Your task to perform on an android device: Clear the cart on costco. Search for "bose soundsport free" on costco, select the first entry, add it to the cart, then select checkout. Image 0: 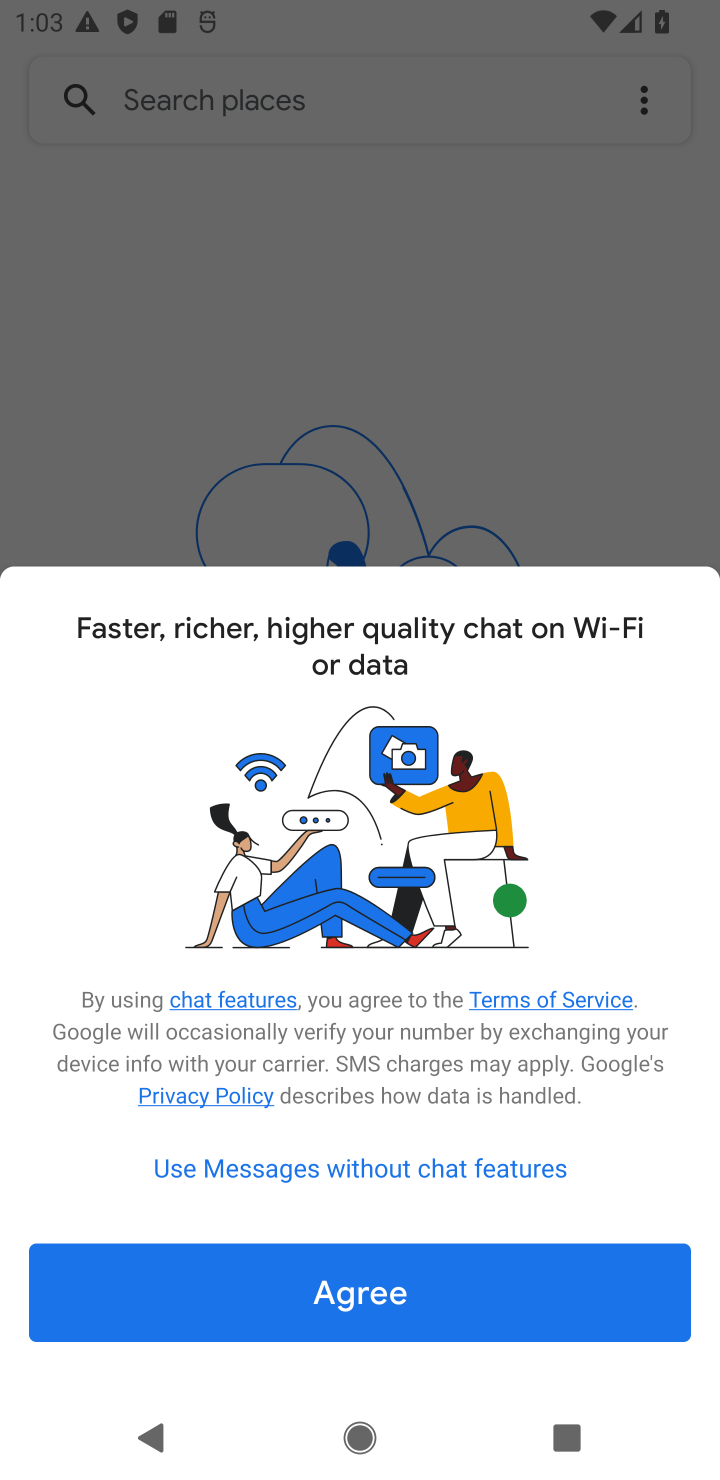
Step 0: press home button
Your task to perform on an android device: Clear the cart on costco. Search for "bose soundsport free" on costco, select the first entry, add it to the cart, then select checkout. Image 1: 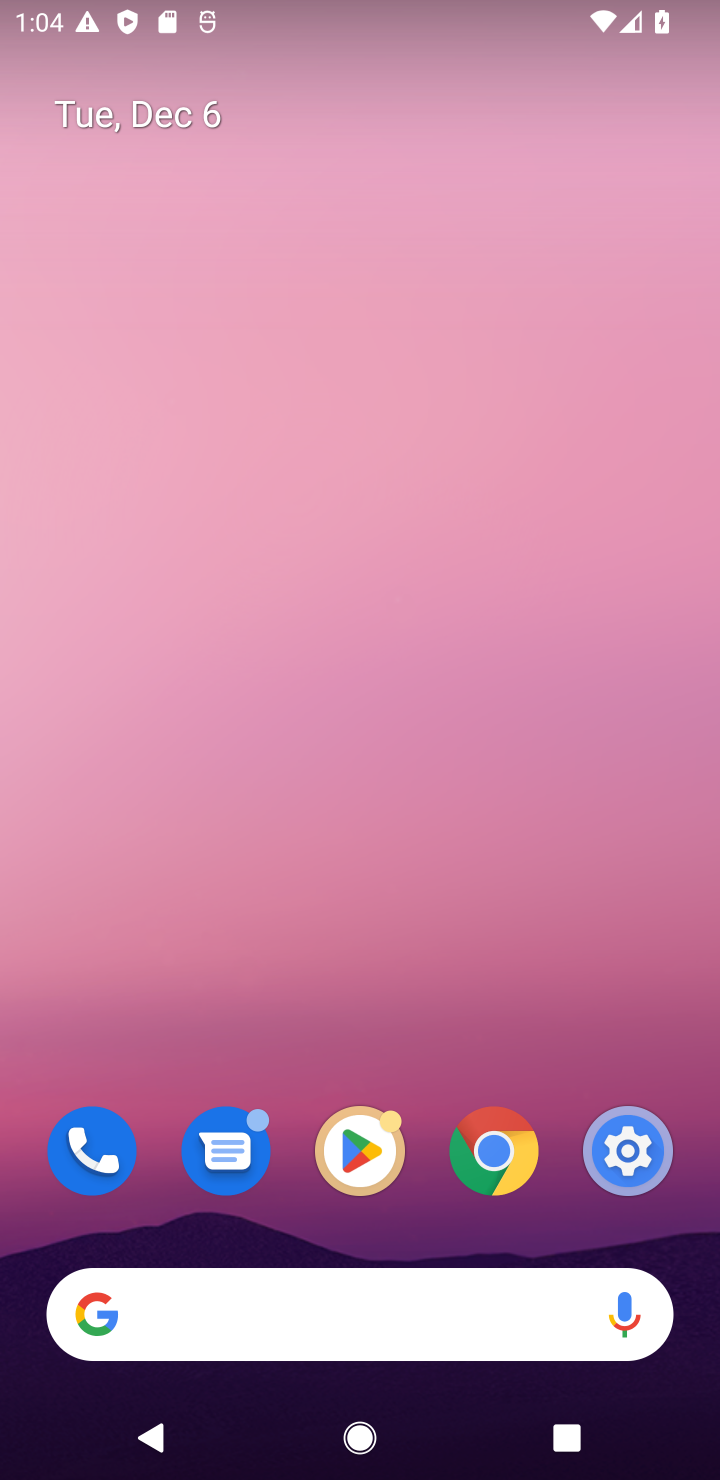
Step 1: click (501, 1167)
Your task to perform on an android device: Clear the cart on costco. Search for "bose soundsport free" on costco, select the first entry, add it to the cart, then select checkout. Image 2: 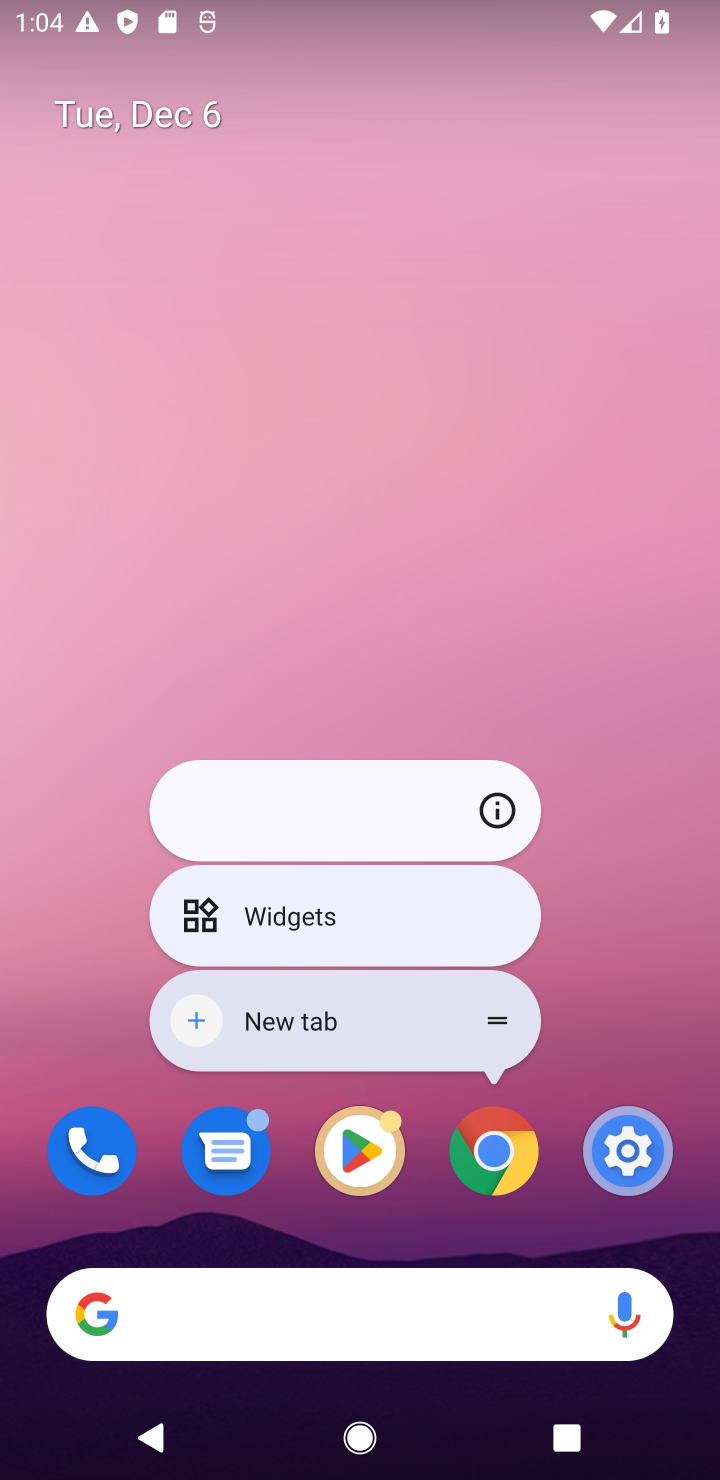
Step 2: click (491, 1162)
Your task to perform on an android device: Clear the cart on costco. Search for "bose soundsport free" on costco, select the first entry, add it to the cart, then select checkout. Image 3: 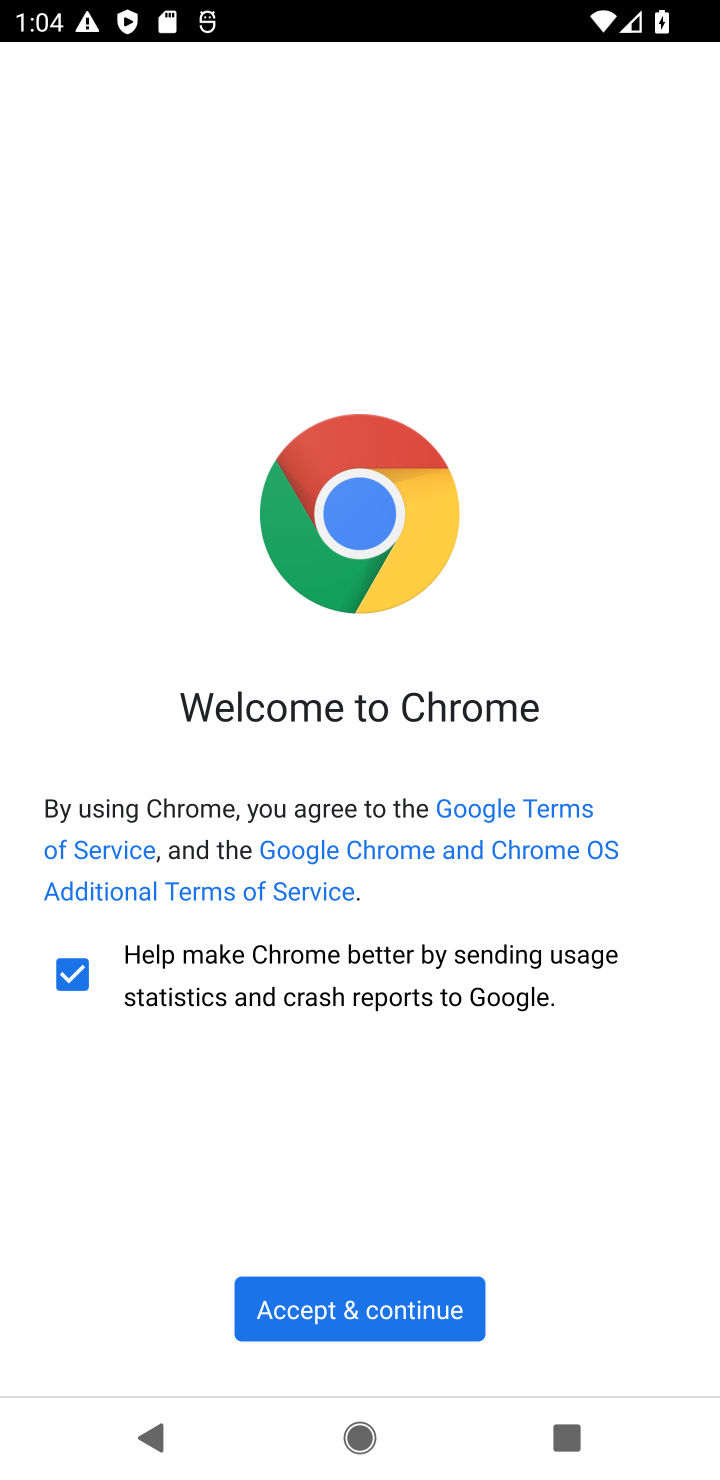
Step 3: click (300, 1306)
Your task to perform on an android device: Clear the cart on costco. Search for "bose soundsport free" on costco, select the first entry, add it to the cart, then select checkout. Image 4: 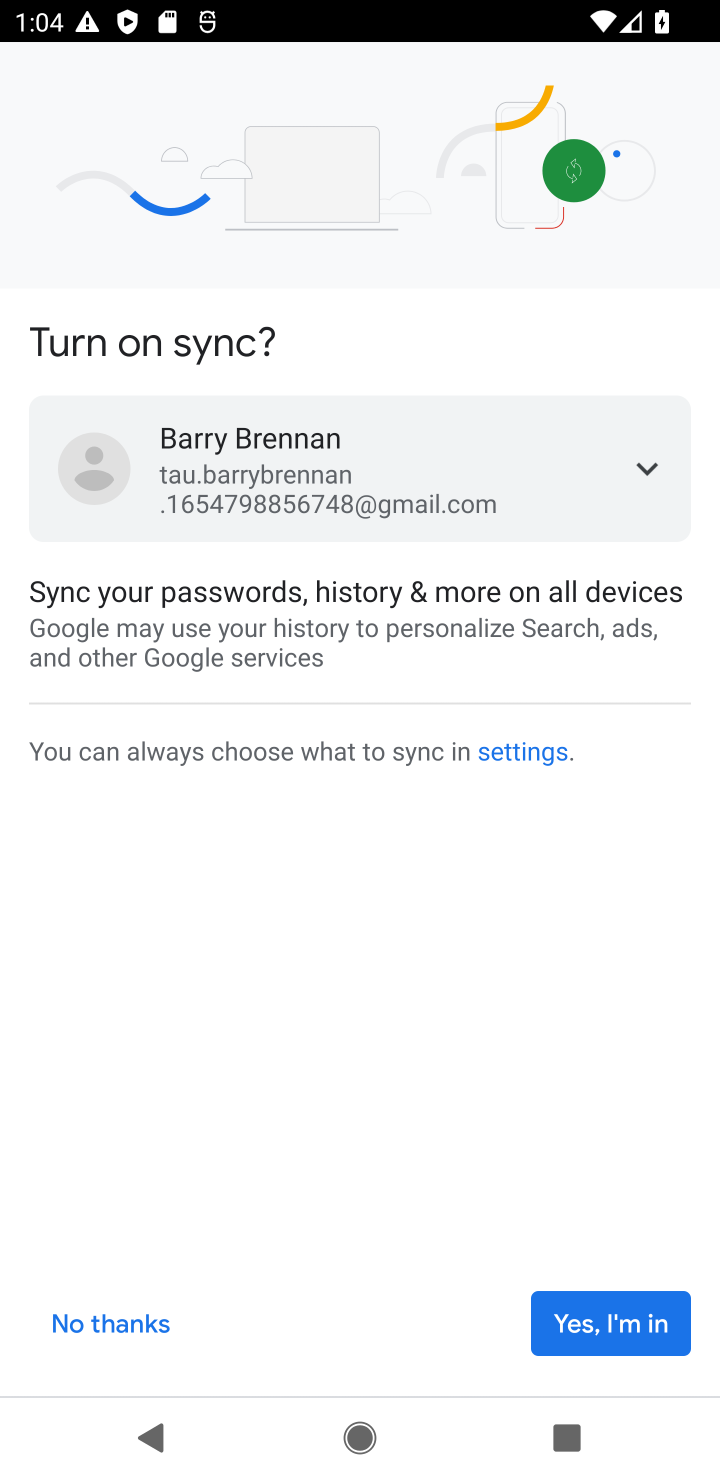
Step 4: click (99, 1321)
Your task to perform on an android device: Clear the cart on costco. Search for "bose soundsport free" on costco, select the first entry, add it to the cart, then select checkout. Image 5: 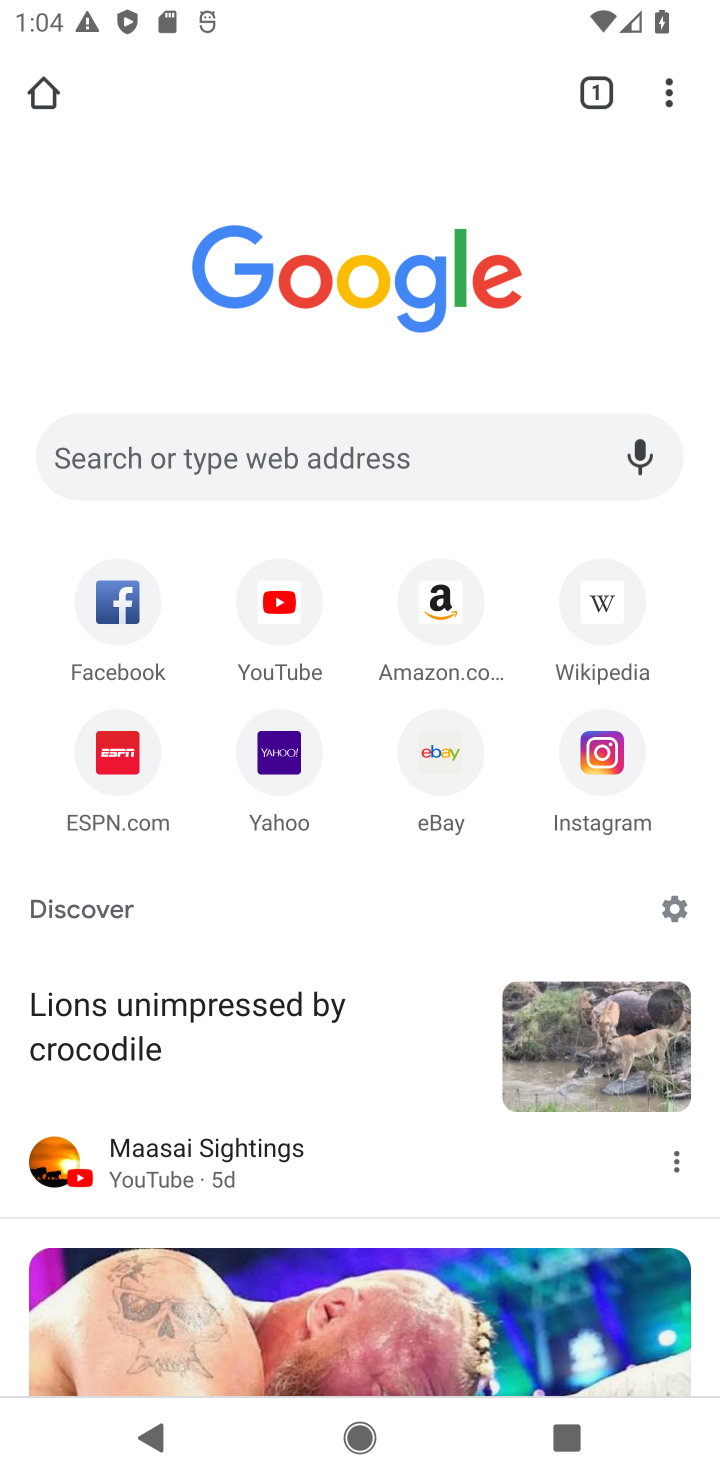
Step 5: click (279, 450)
Your task to perform on an android device: Clear the cart on costco. Search for "bose soundsport free" on costco, select the first entry, add it to the cart, then select checkout. Image 6: 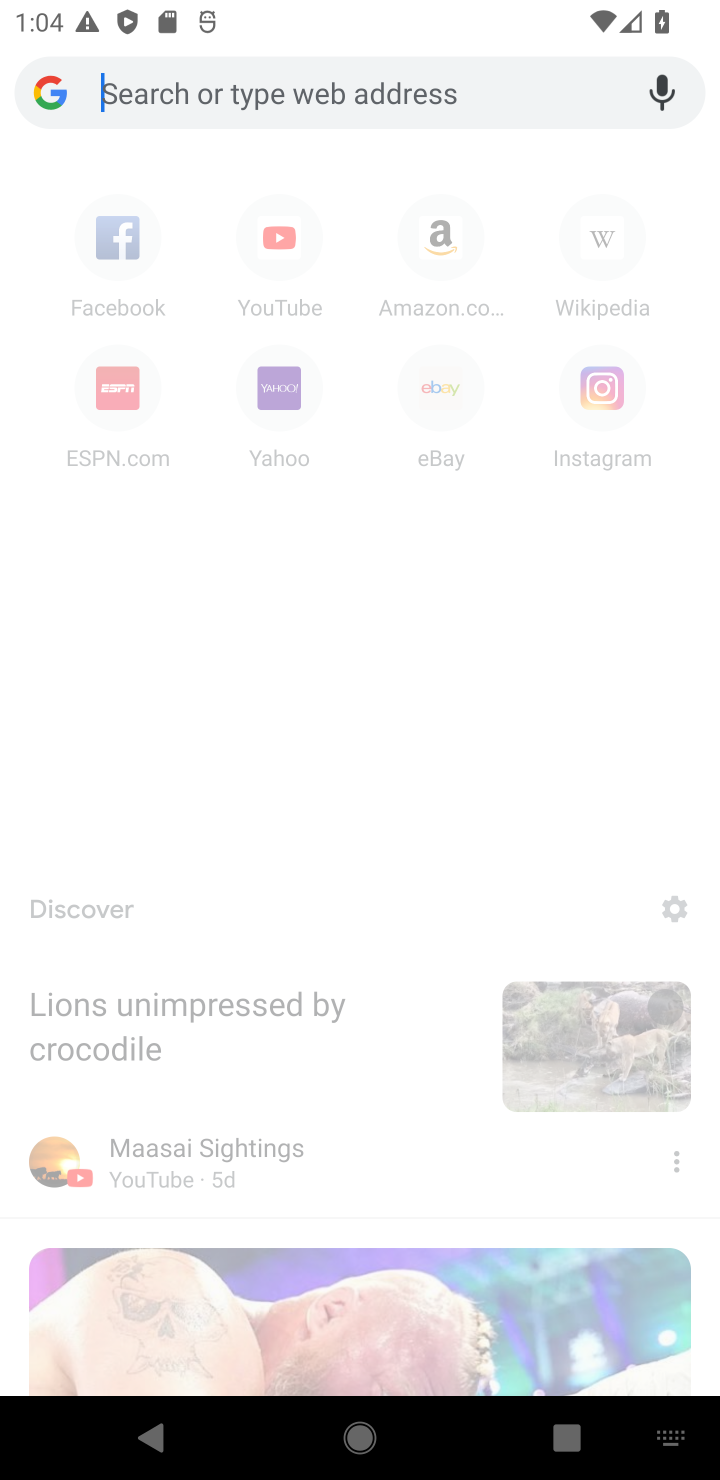
Step 6: type "costco.com"
Your task to perform on an android device: Clear the cart on costco. Search for "bose soundsport free" on costco, select the first entry, add it to the cart, then select checkout. Image 7: 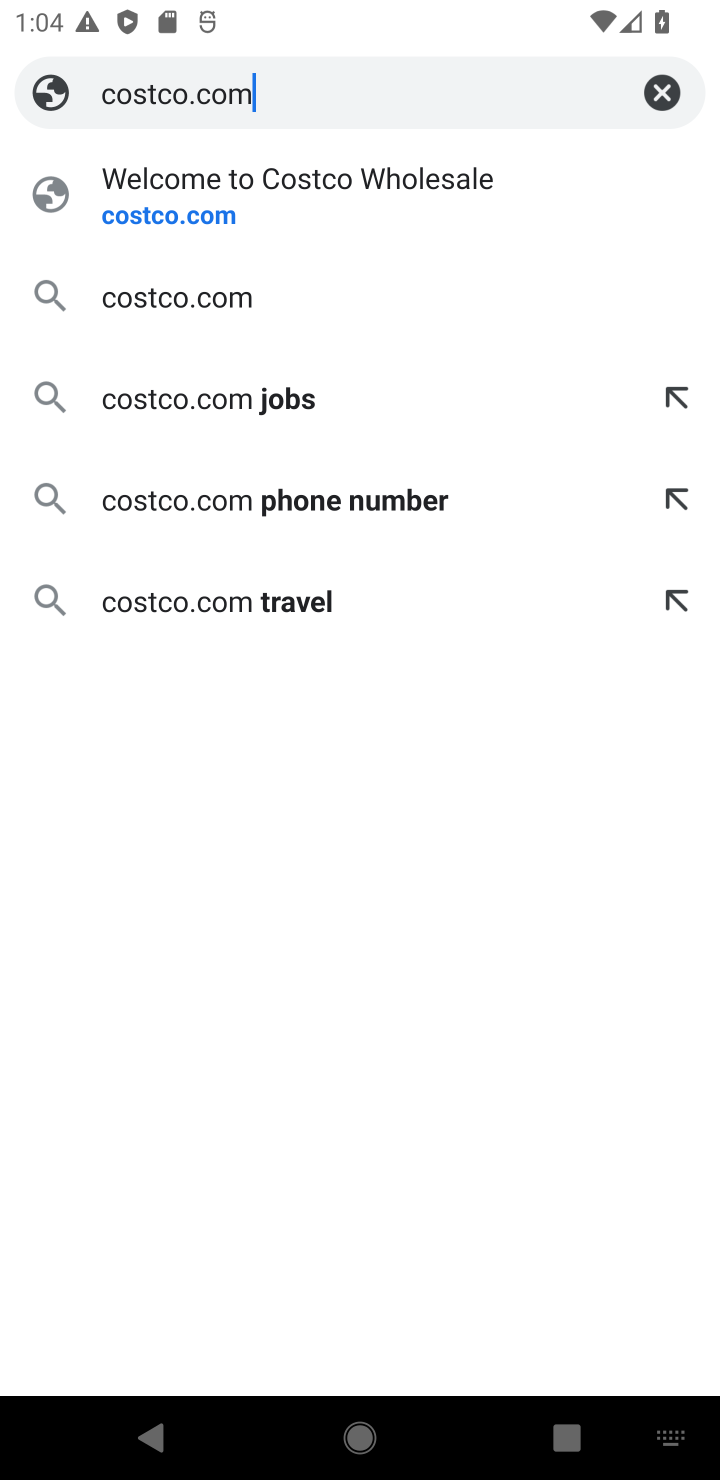
Step 7: click (174, 223)
Your task to perform on an android device: Clear the cart on costco. Search for "bose soundsport free" on costco, select the first entry, add it to the cart, then select checkout. Image 8: 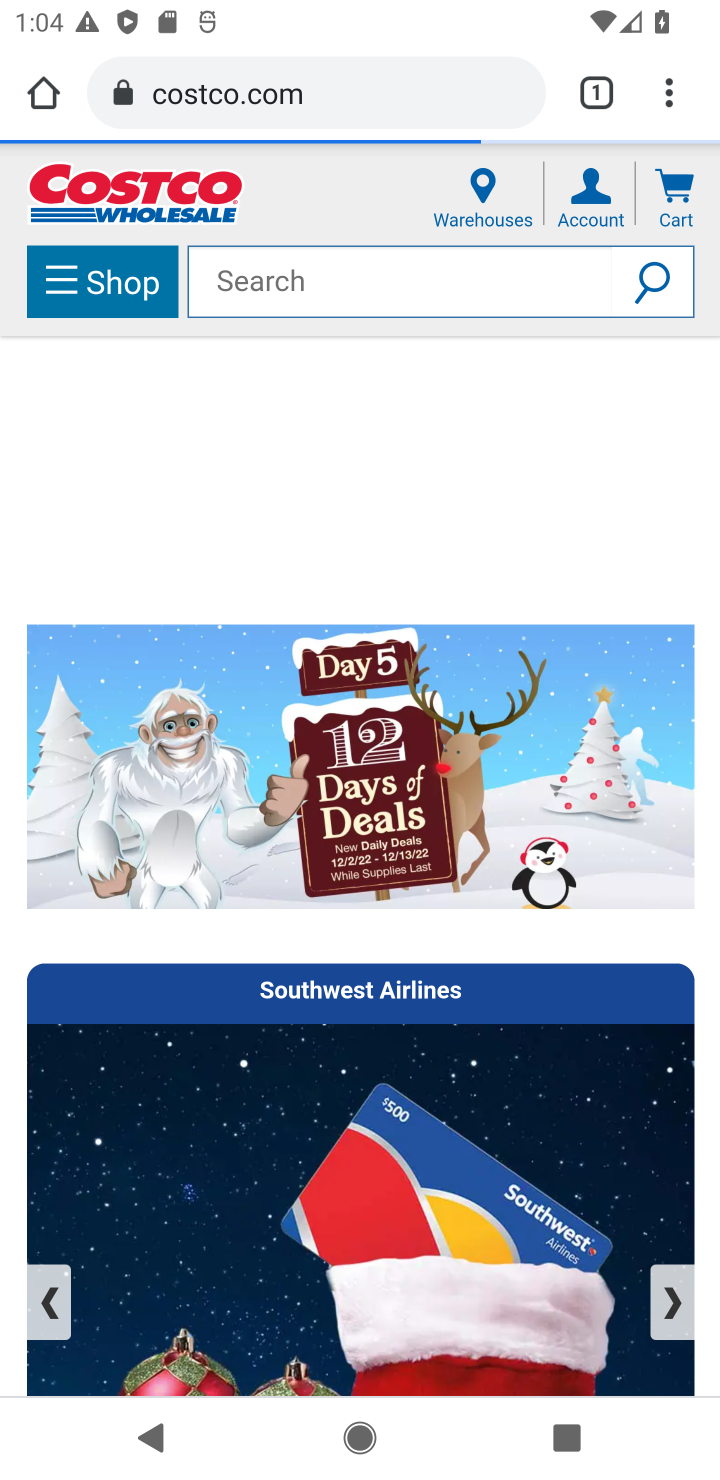
Step 8: click (677, 206)
Your task to perform on an android device: Clear the cart on costco. Search for "bose soundsport free" on costco, select the first entry, add it to the cart, then select checkout. Image 9: 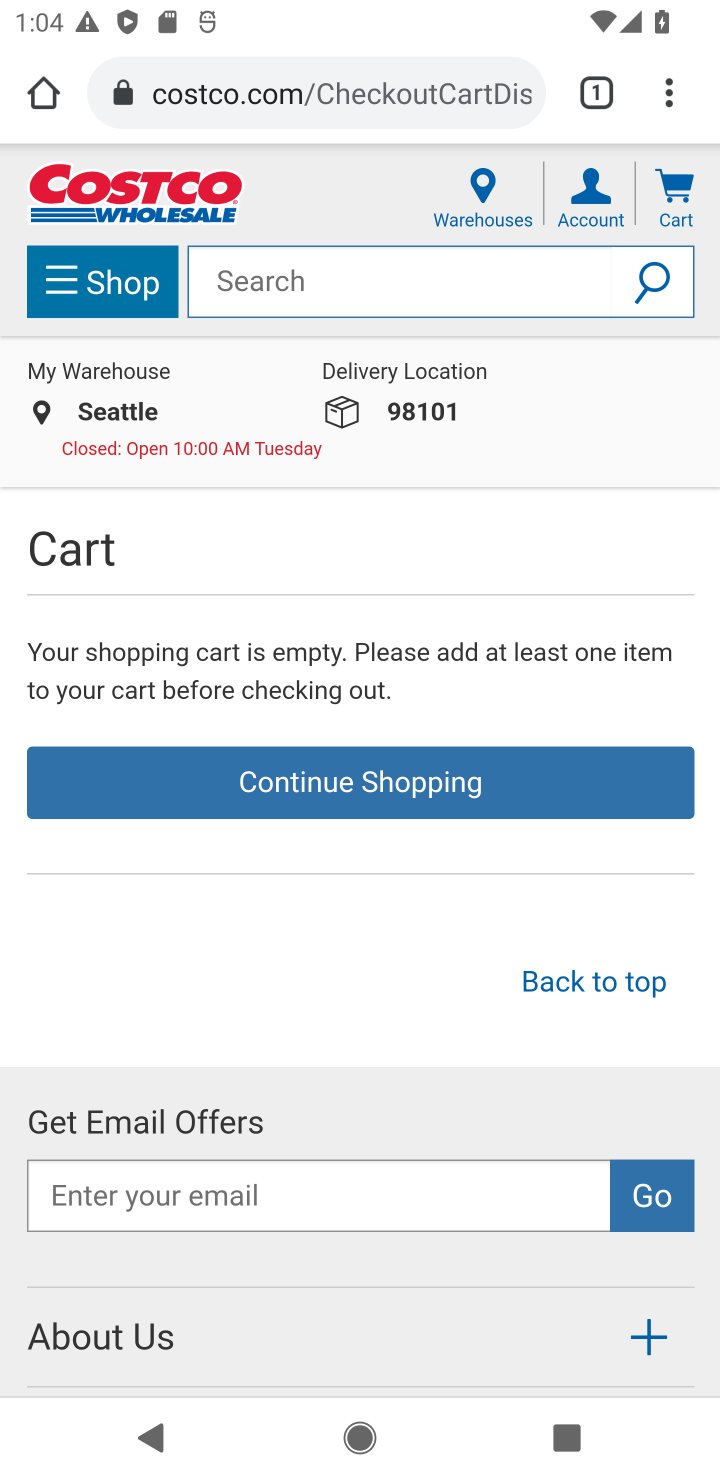
Step 9: click (271, 279)
Your task to perform on an android device: Clear the cart on costco. Search for "bose soundsport free" on costco, select the first entry, add it to the cart, then select checkout. Image 10: 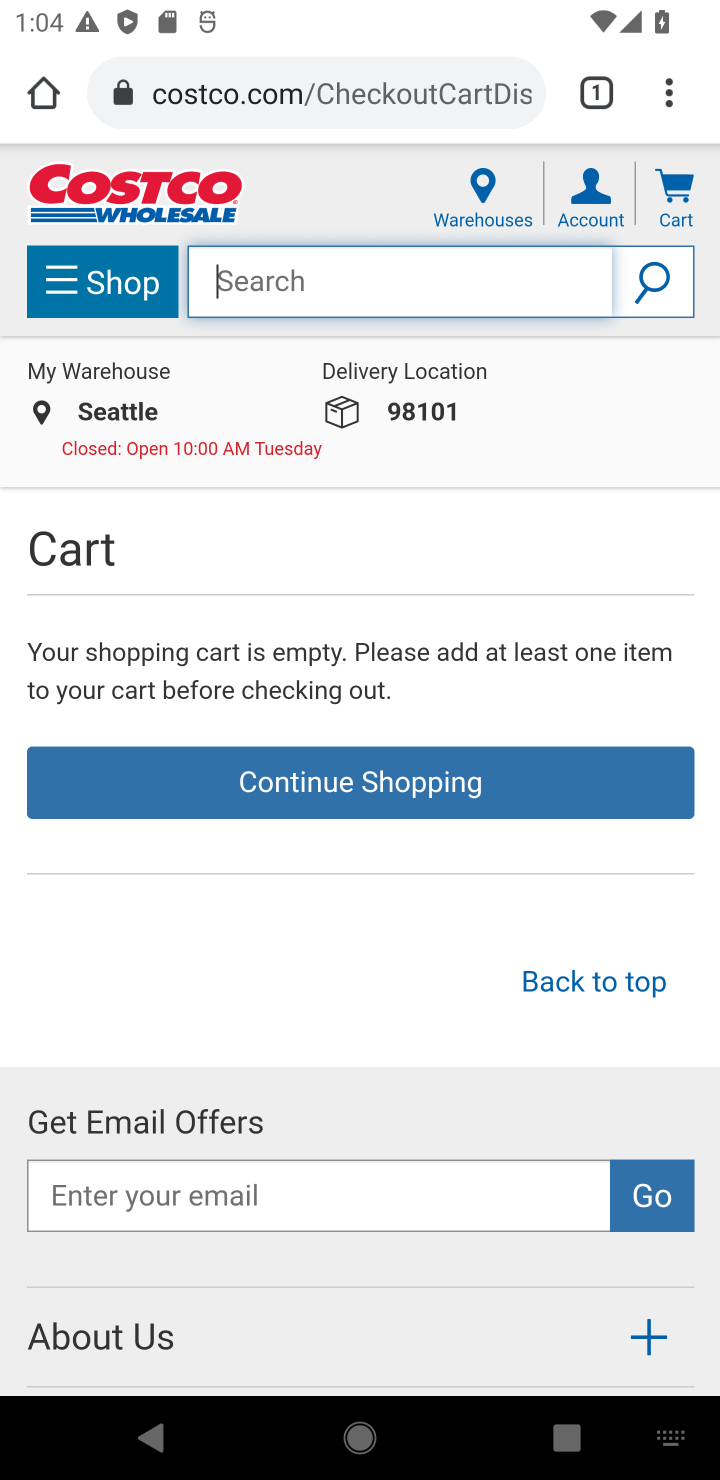
Step 10: type "bose soundsport free"
Your task to perform on an android device: Clear the cart on costco. Search for "bose soundsport free" on costco, select the first entry, add it to the cart, then select checkout. Image 11: 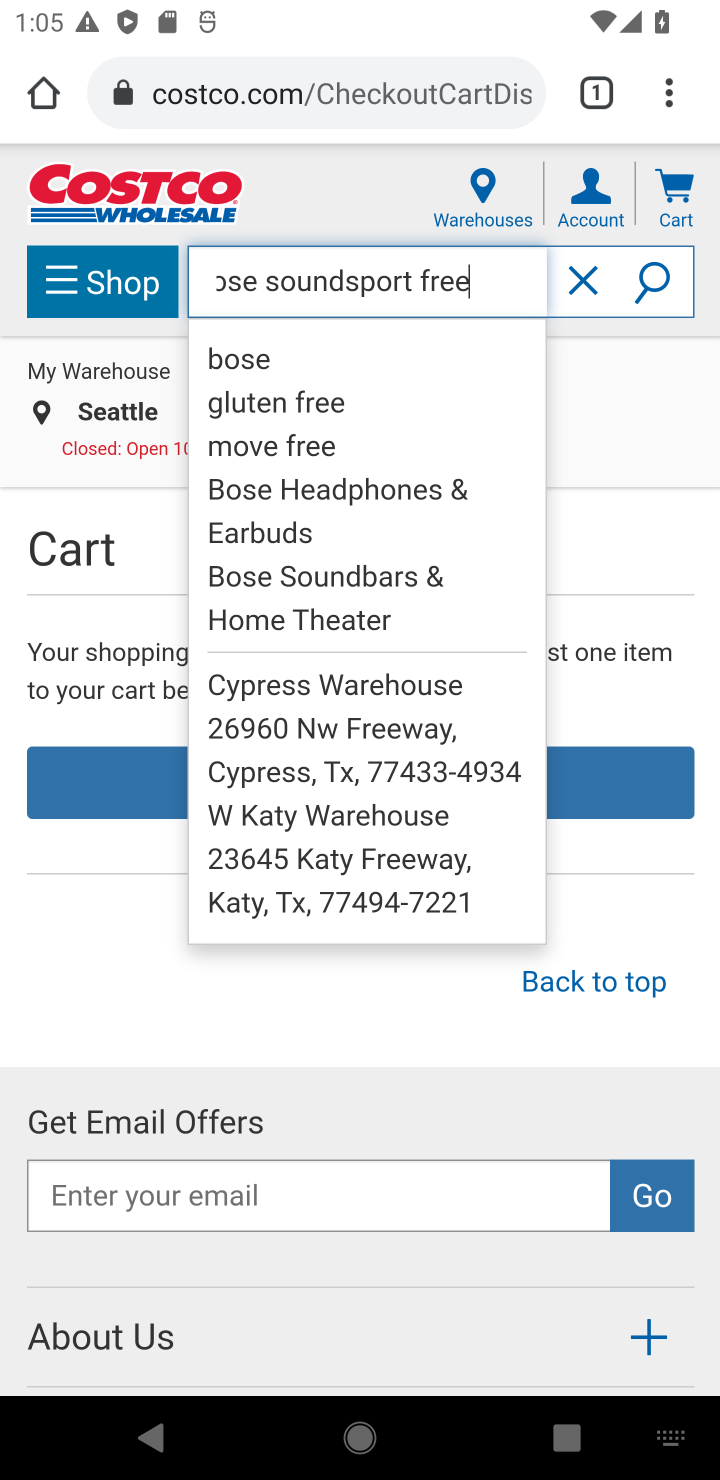
Step 11: click (668, 283)
Your task to perform on an android device: Clear the cart on costco. Search for "bose soundsport free" on costco, select the first entry, add it to the cart, then select checkout. Image 12: 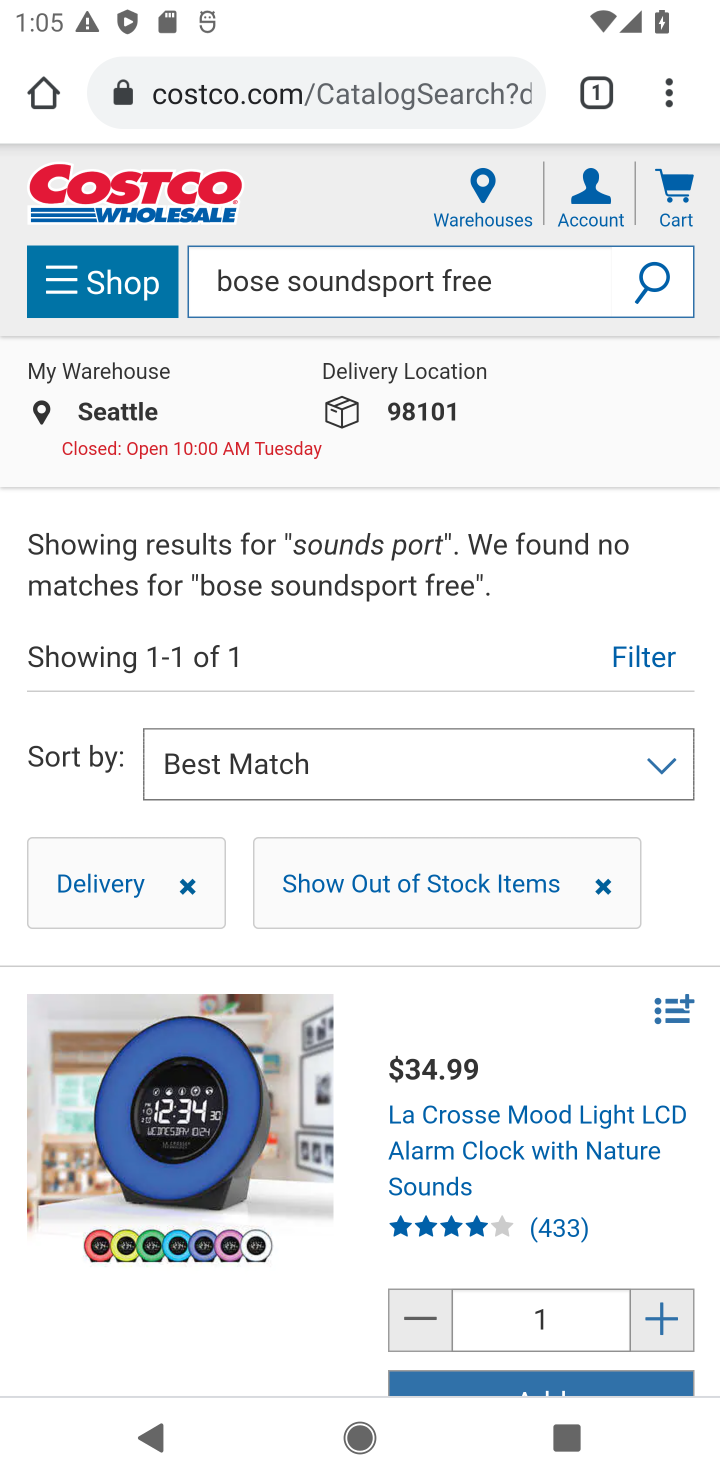
Step 12: task complete